Your task to perform on an android device: Open calendar and show me the first week of next month Image 0: 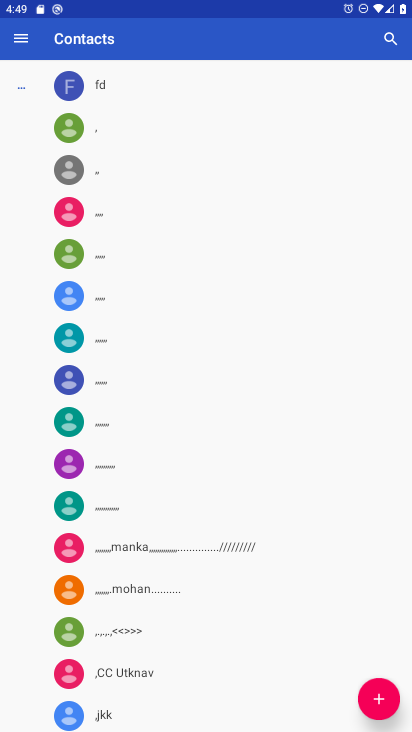
Step 0: press home button
Your task to perform on an android device: Open calendar and show me the first week of next month Image 1: 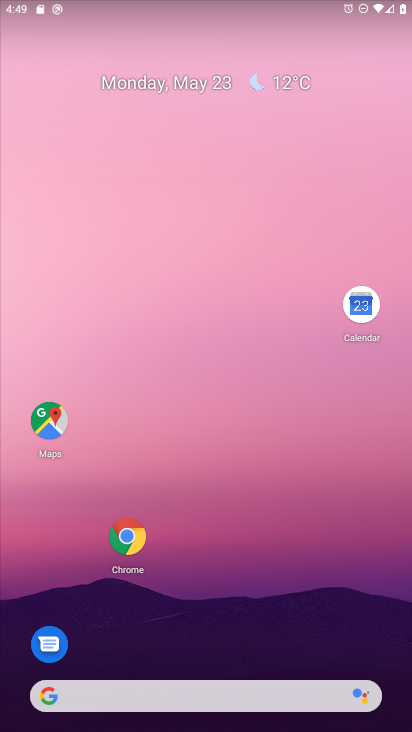
Step 1: drag from (297, 566) to (156, 57)
Your task to perform on an android device: Open calendar and show me the first week of next month Image 2: 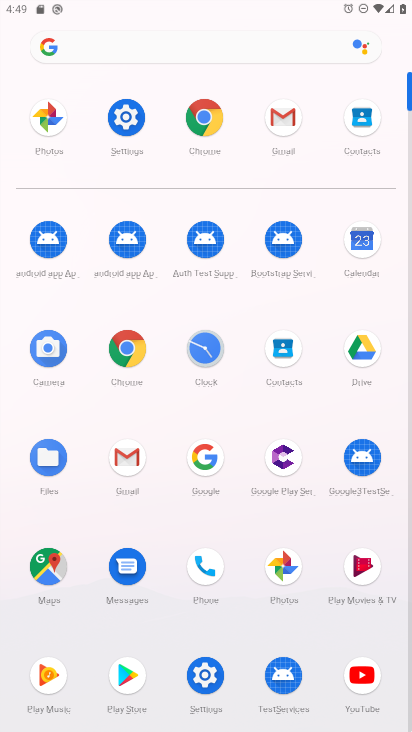
Step 2: click (363, 232)
Your task to perform on an android device: Open calendar and show me the first week of next month Image 3: 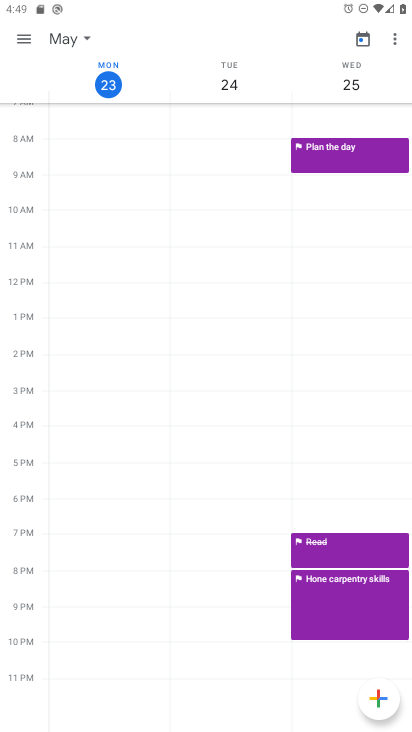
Step 3: click (75, 38)
Your task to perform on an android device: Open calendar and show me the first week of next month Image 4: 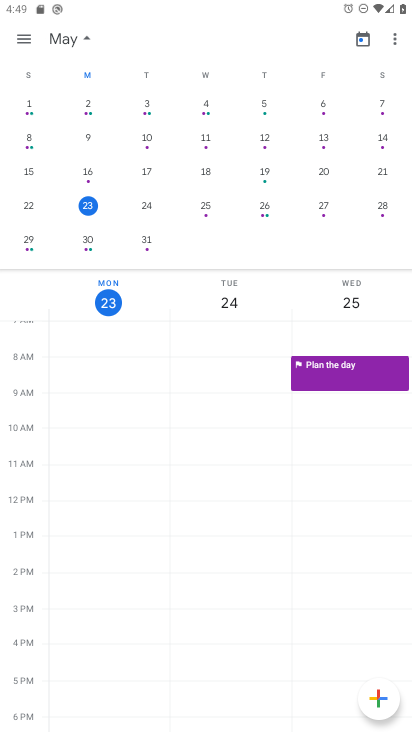
Step 4: drag from (370, 203) to (1, 177)
Your task to perform on an android device: Open calendar and show me the first week of next month Image 5: 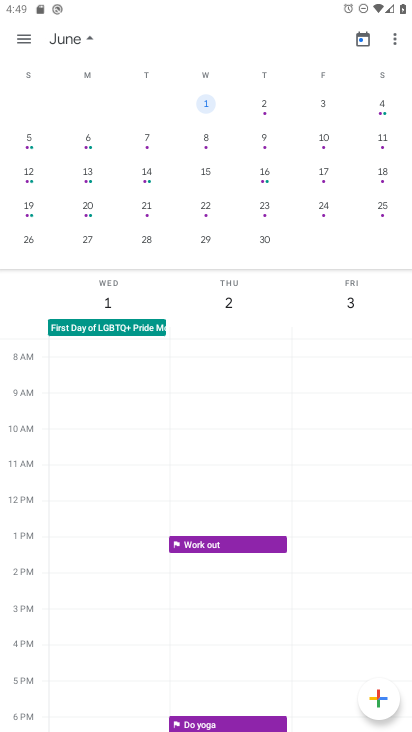
Step 5: click (31, 141)
Your task to perform on an android device: Open calendar and show me the first week of next month Image 6: 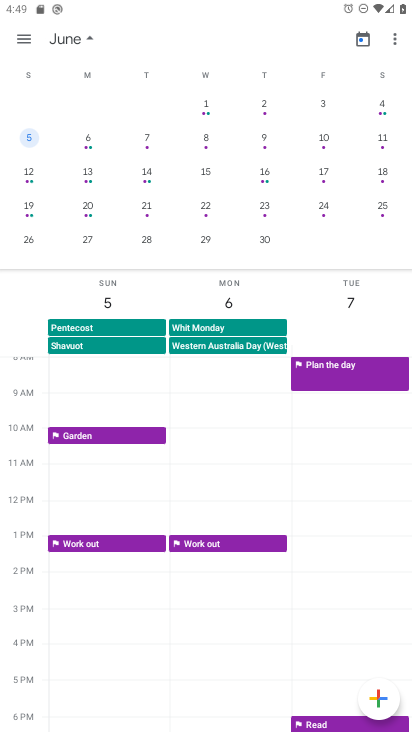
Step 6: task complete